Your task to perform on an android device: show emergency info Image 0: 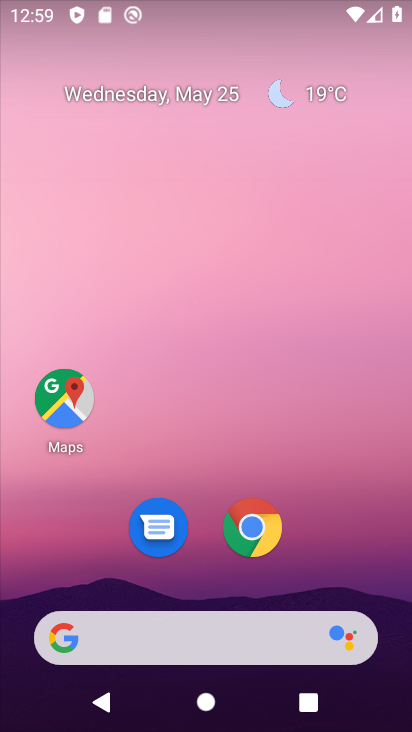
Step 0: drag from (382, 588) to (374, 179)
Your task to perform on an android device: show emergency info Image 1: 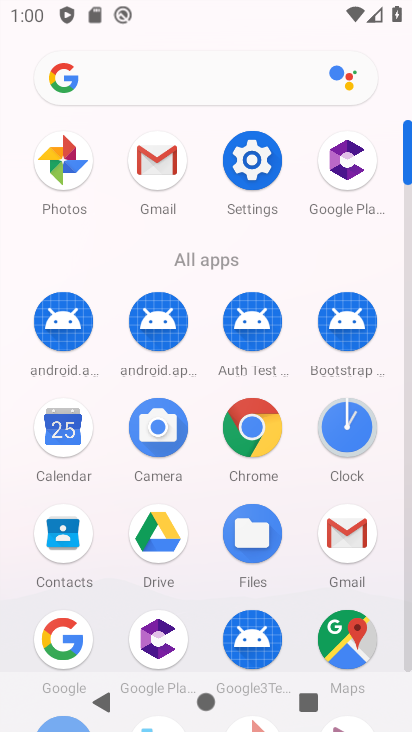
Step 1: drag from (294, 609) to (367, 230)
Your task to perform on an android device: show emergency info Image 2: 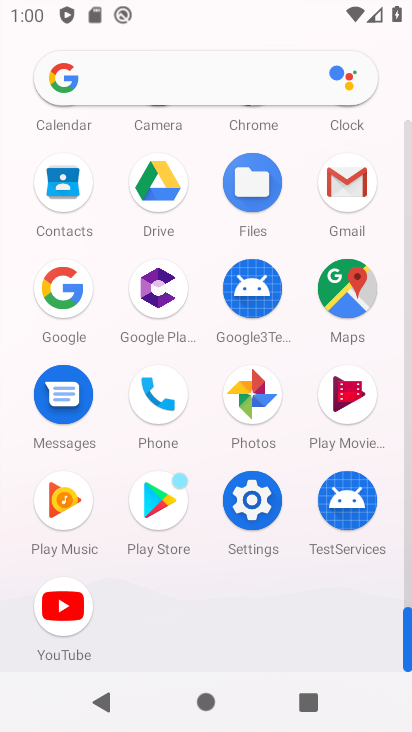
Step 2: click (241, 521)
Your task to perform on an android device: show emergency info Image 3: 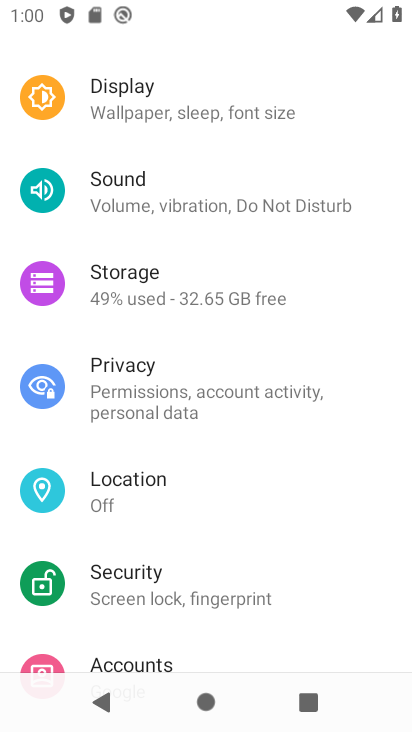
Step 3: drag from (349, 276) to (20, 413)
Your task to perform on an android device: show emergency info Image 4: 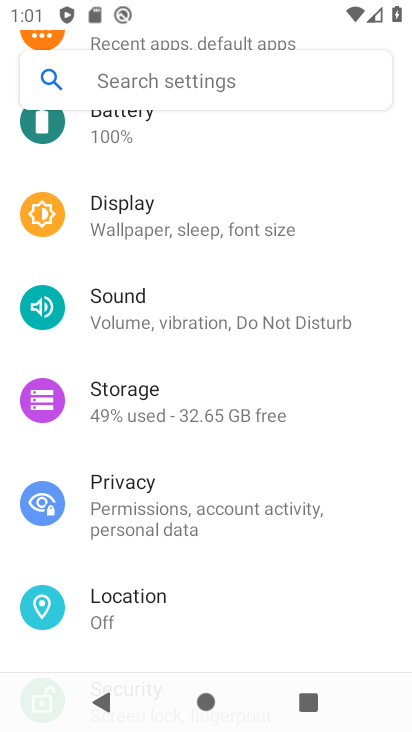
Step 4: drag from (342, 582) to (368, 410)
Your task to perform on an android device: show emergency info Image 5: 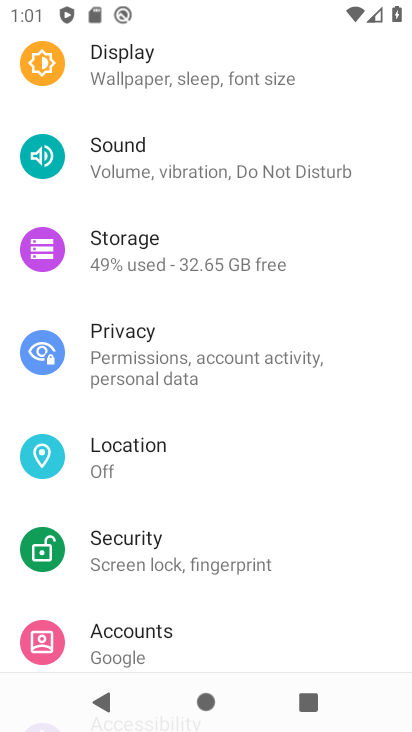
Step 5: drag from (353, 592) to (387, 369)
Your task to perform on an android device: show emergency info Image 6: 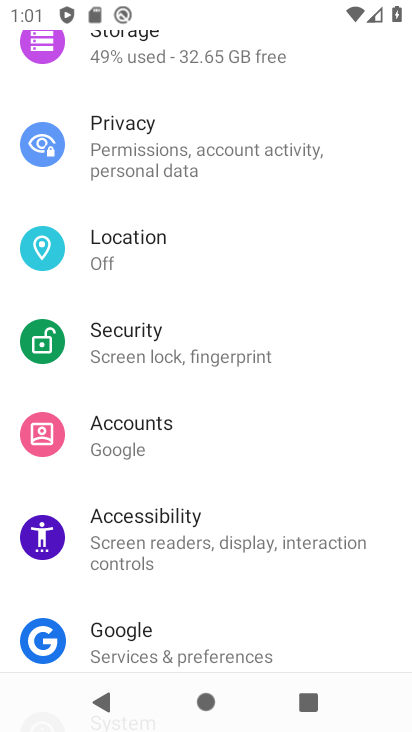
Step 6: drag from (360, 618) to (368, 449)
Your task to perform on an android device: show emergency info Image 7: 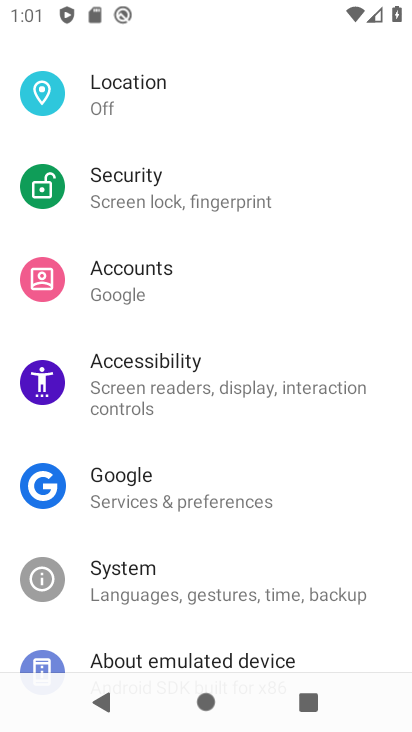
Step 7: drag from (335, 556) to (318, 414)
Your task to perform on an android device: show emergency info Image 8: 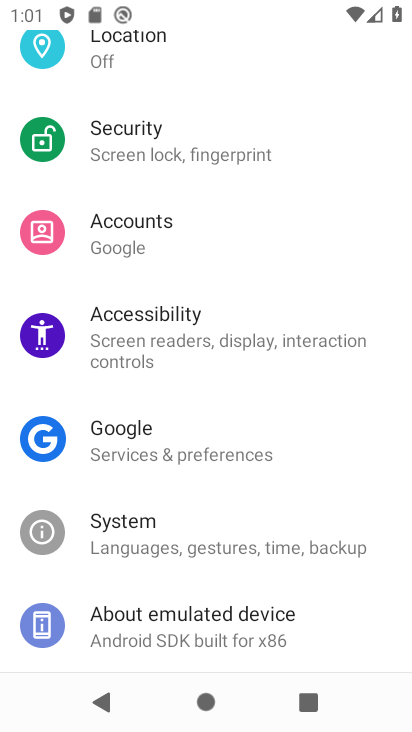
Step 8: drag from (316, 572) to (298, 419)
Your task to perform on an android device: show emergency info Image 9: 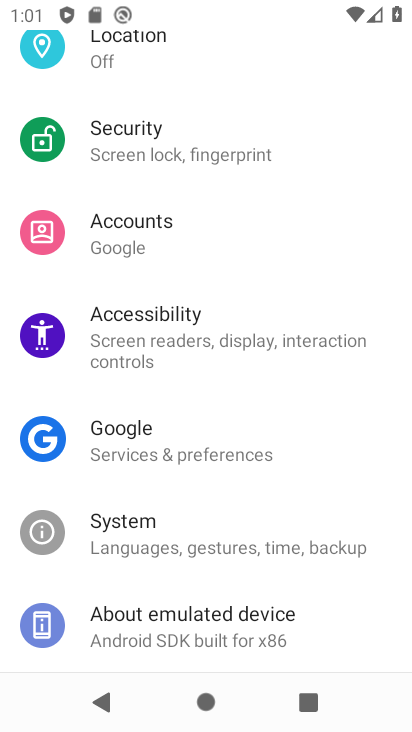
Step 9: drag from (305, 257) to (318, 445)
Your task to perform on an android device: show emergency info Image 10: 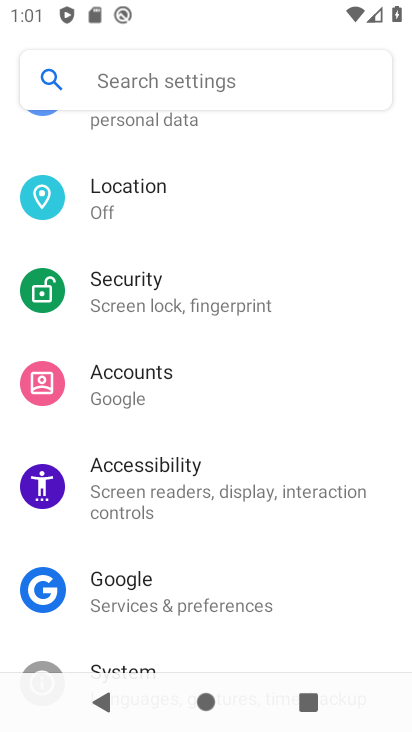
Step 10: drag from (308, 249) to (309, 441)
Your task to perform on an android device: show emergency info Image 11: 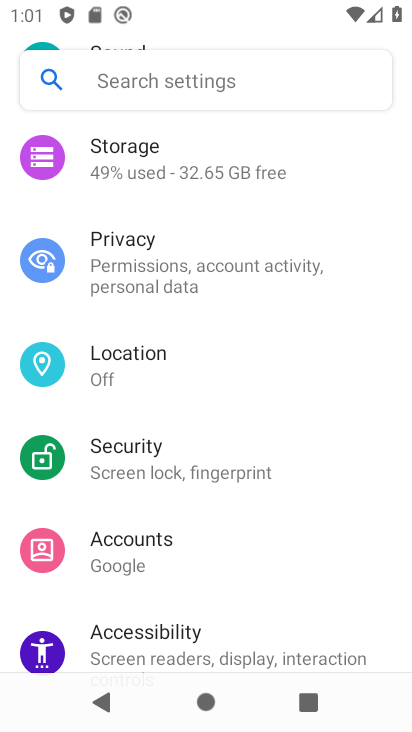
Step 11: drag from (313, 229) to (320, 417)
Your task to perform on an android device: show emergency info Image 12: 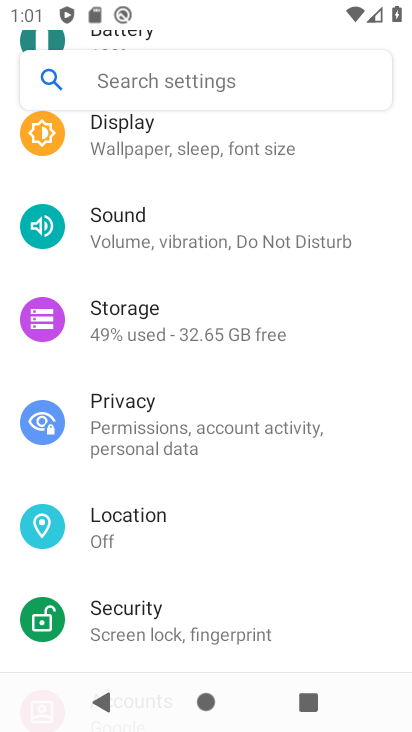
Step 12: drag from (329, 508) to (323, 300)
Your task to perform on an android device: show emergency info Image 13: 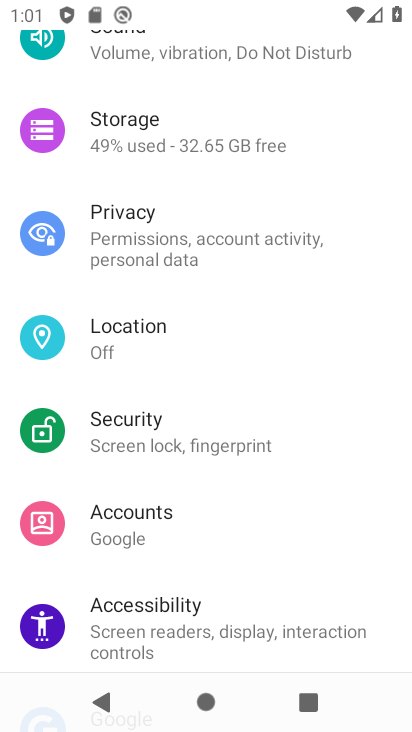
Step 13: drag from (319, 509) to (302, 350)
Your task to perform on an android device: show emergency info Image 14: 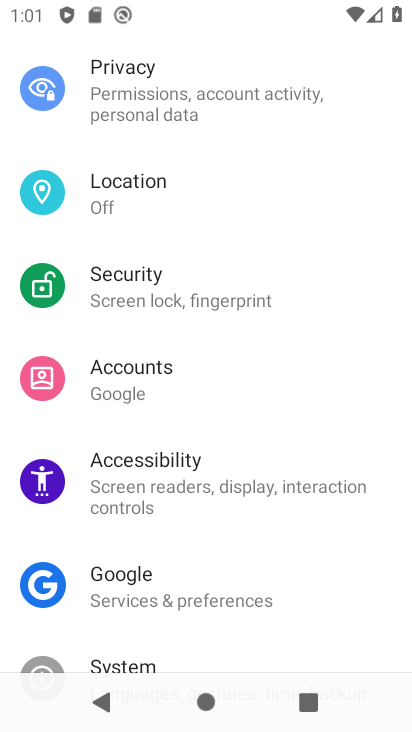
Step 14: drag from (302, 554) to (298, 399)
Your task to perform on an android device: show emergency info Image 15: 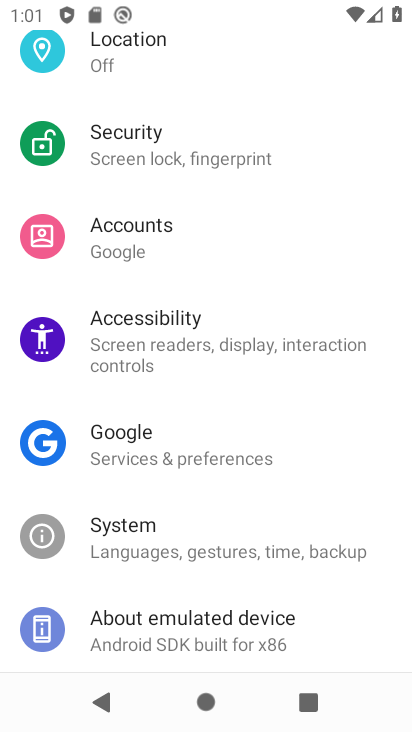
Step 15: drag from (297, 510) to (298, 371)
Your task to perform on an android device: show emergency info Image 16: 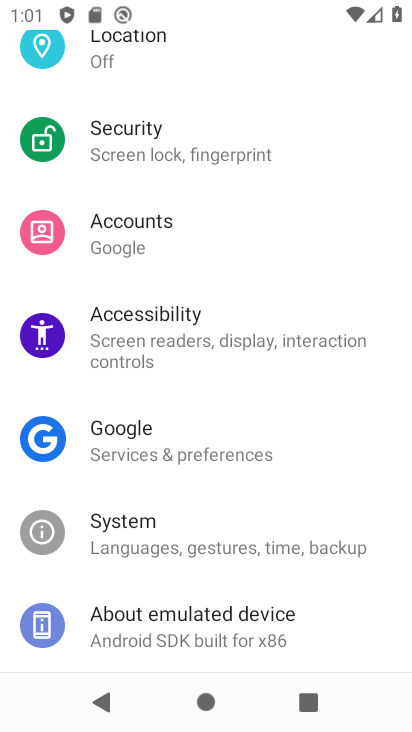
Step 16: drag from (331, 597) to (325, 342)
Your task to perform on an android device: show emergency info Image 17: 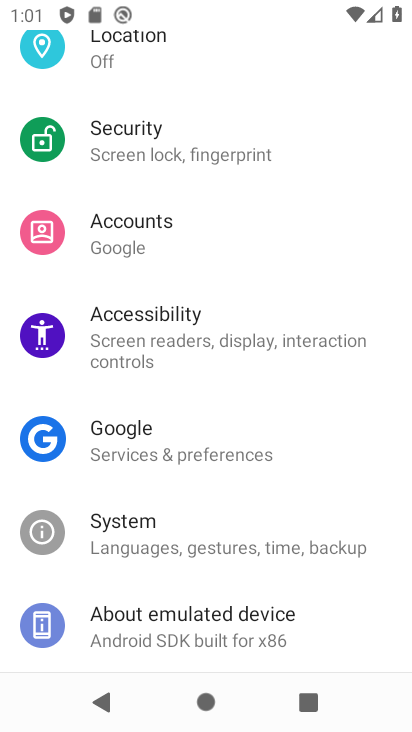
Step 17: click (204, 630)
Your task to perform on an android device: show emergency info Image 18: 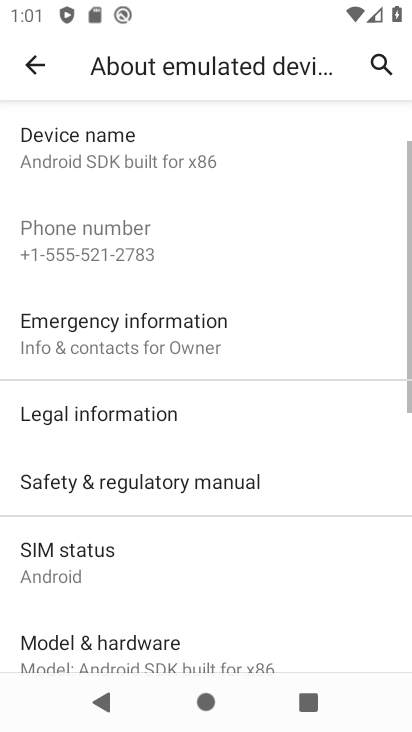
Step 18: drag from (255, 570) to (255, 383)
Your task to perform on an android device: show emergency info Image 19: 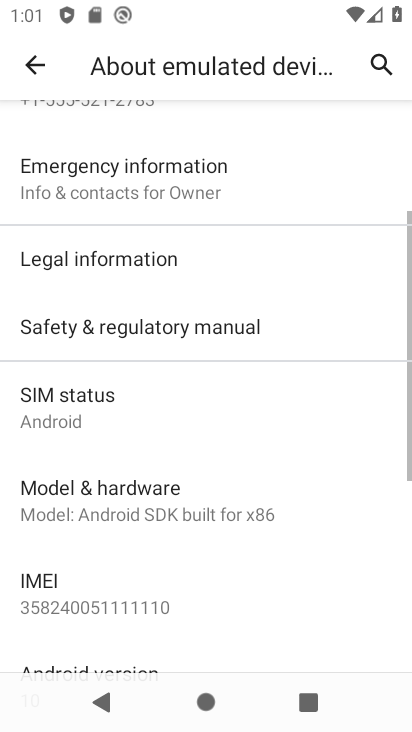
Step 19: drag from (301, 547) to (293, 351)
Your task to perform on an android device: show emergency info Image 20: 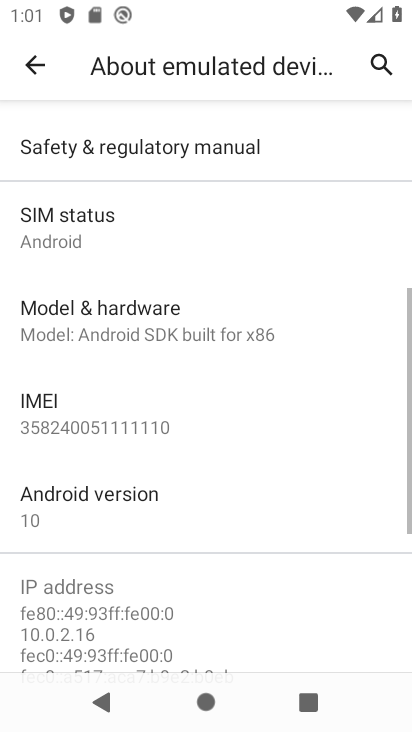
Step 20: drag from (333, 535) to (314, 334)
Your task to perform on an android device: show emergency info Image 21: 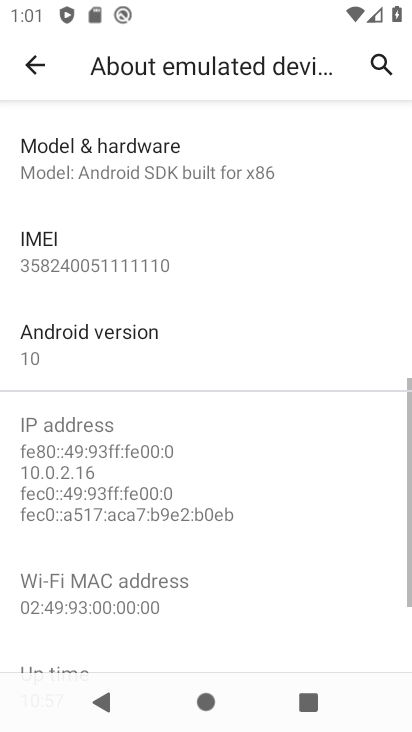
Step 21: drag from (295, 210) to (295, 444)
Your task to perform on an android device: show emergency info Image 22: 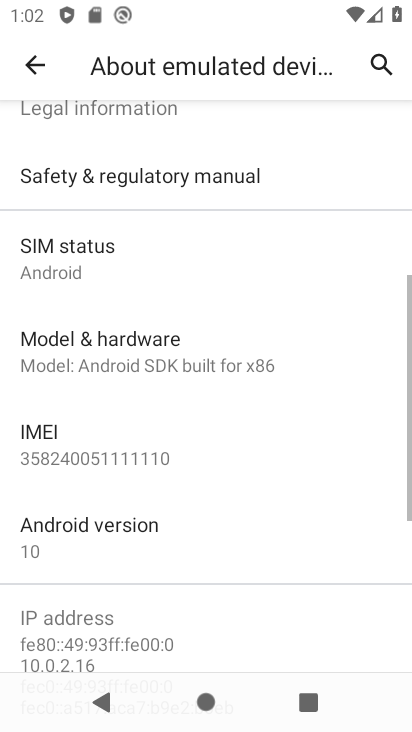
Step 22: drag from (280, 195) to (270, 424)
Your task to perform on an android device: show emergency info Image 23: 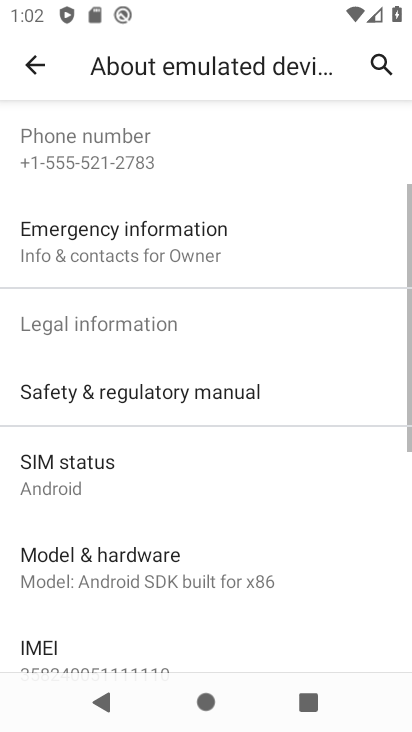
Step 23: click (195, 248)
Your task to perform on an android device: show emergency info Image 24: 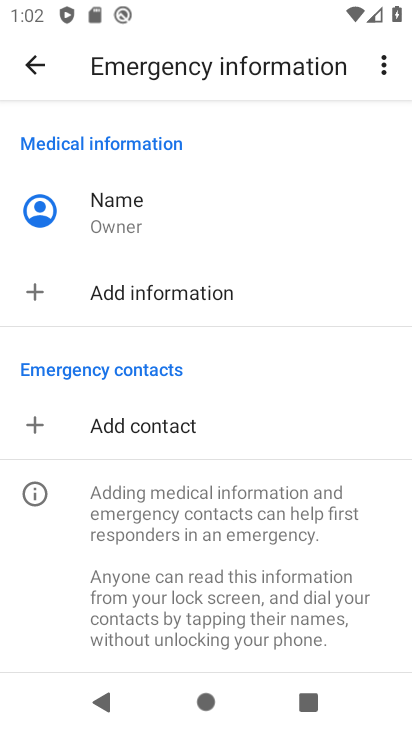
Step 24: task complete